Your task to perform on an android device: turn off improve location accuracy Image 0: 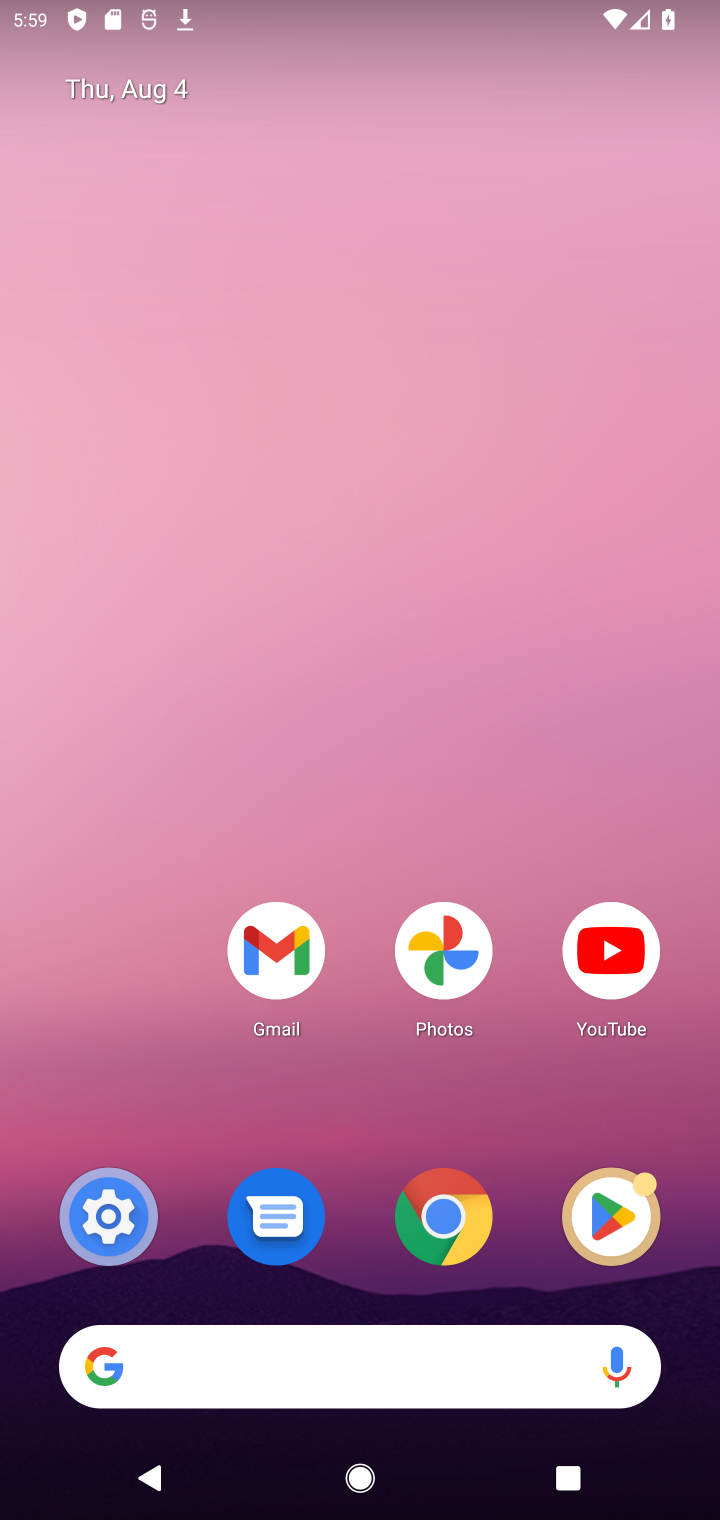
Step 0: drag from (92, 1118) to (135, 4)
Your task to perform on an android device: turn off improve location accuracy Image 1: 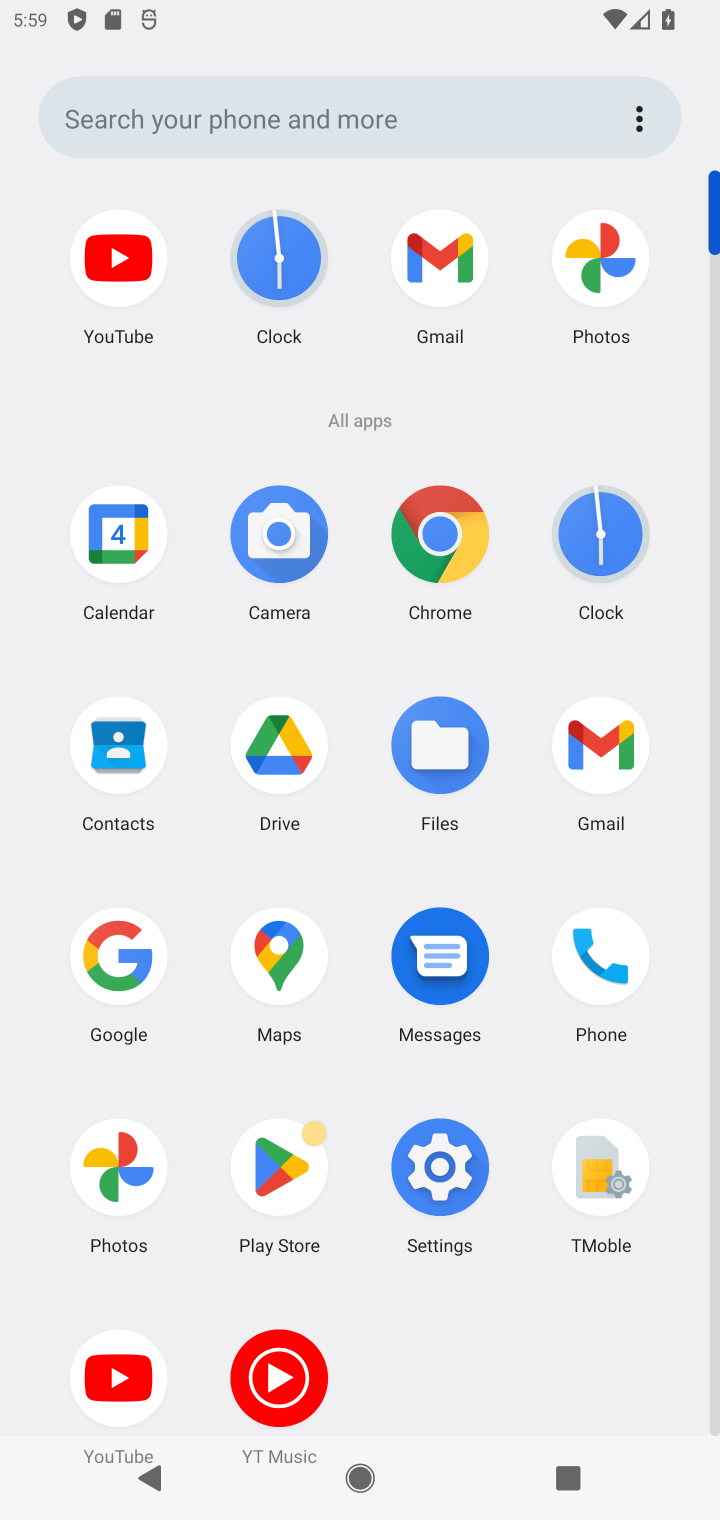
Step 1: click (455, 1176)
Your task to perform on an android device: turn off improve location accuracy Image 2: 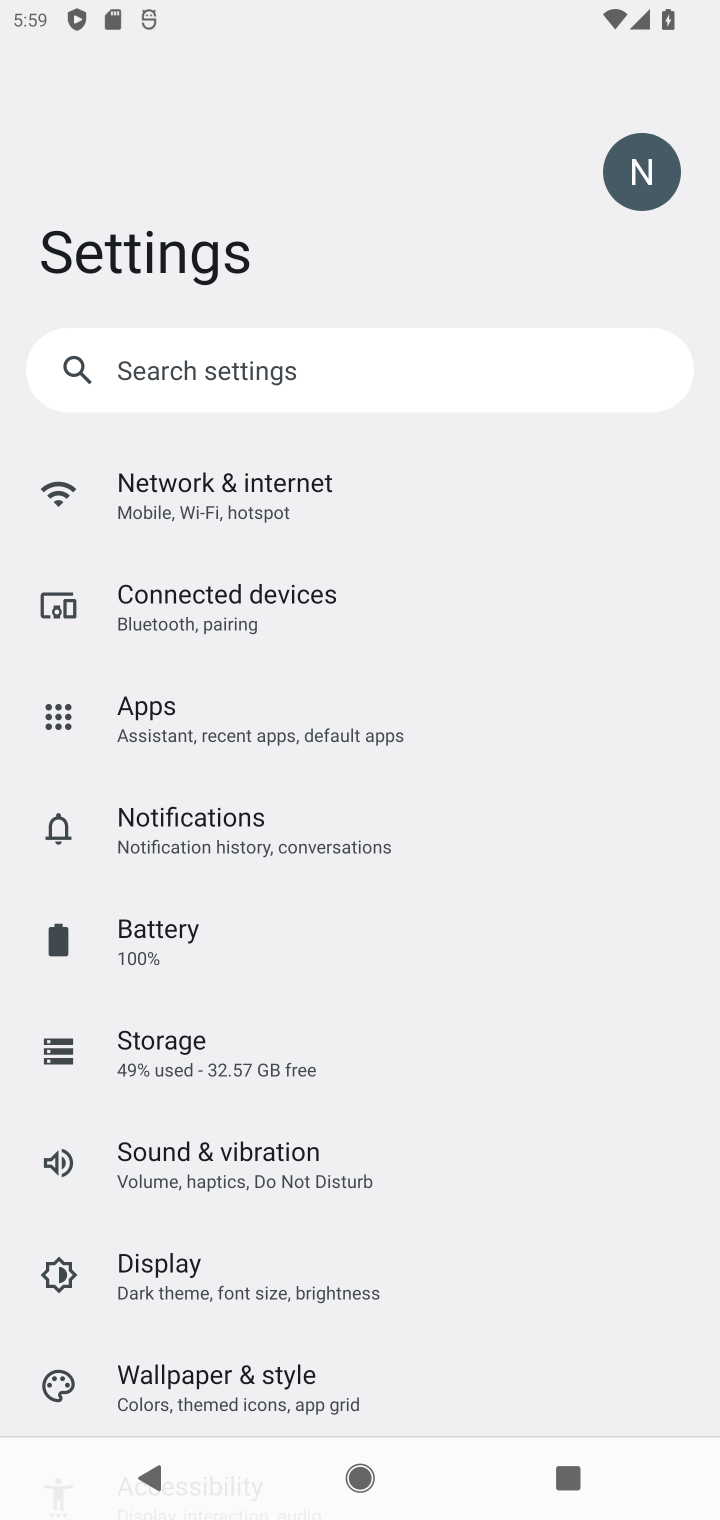
Step 2: drag from (307, 1330) to (369, 663)
Your task to perform on an android device: turn off improve location accuracy Image 3: 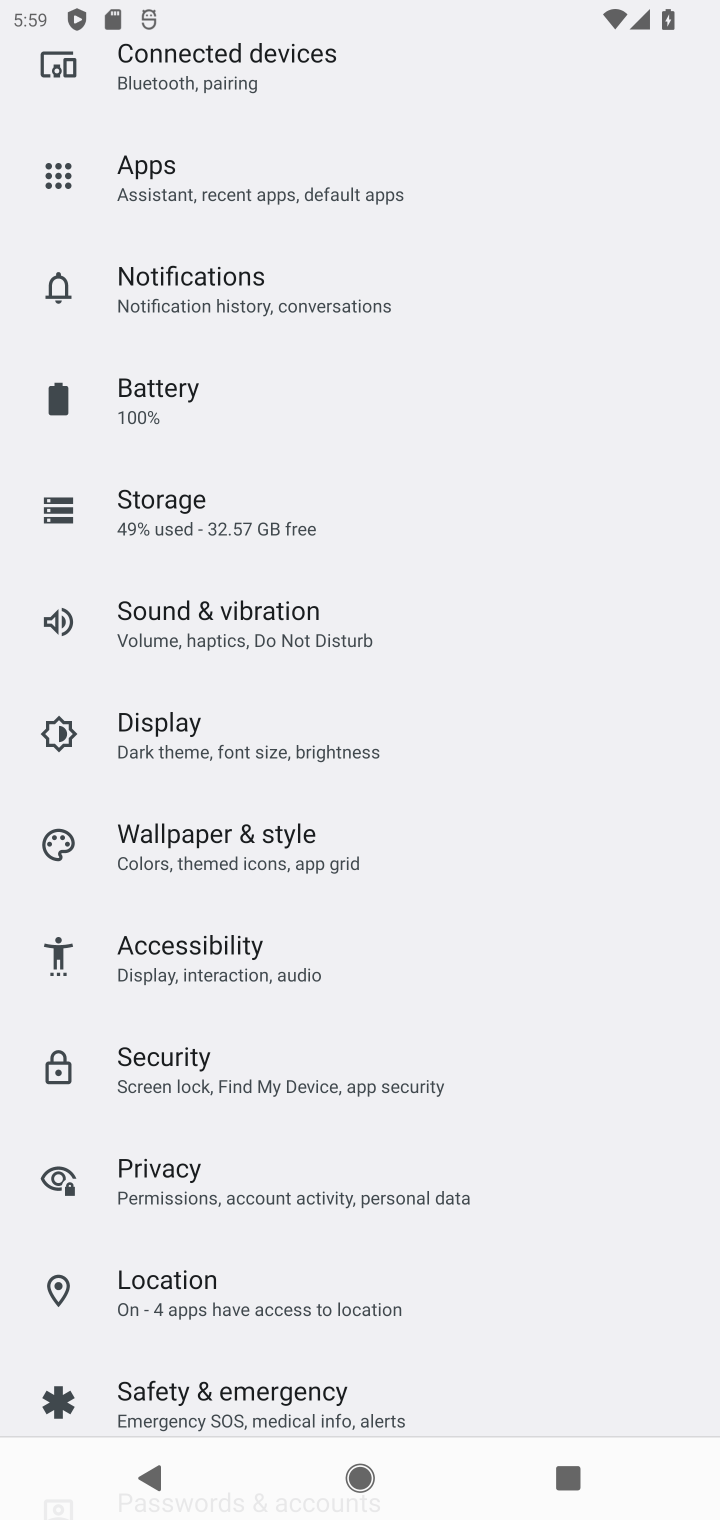
Step 3: click (232, 1309)
Your task to perform on an android device: turn off improve location accuracy Image 4: 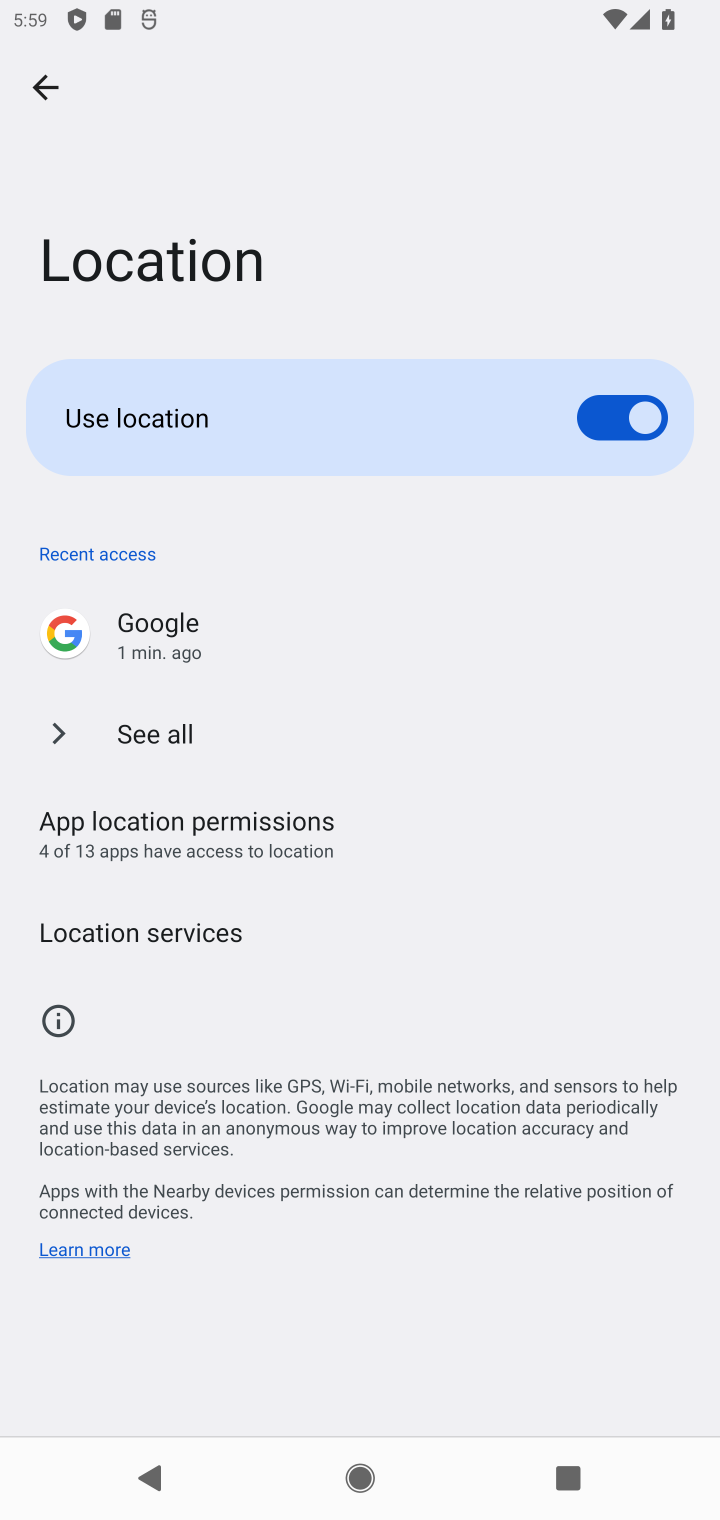
Step 4: click (182, 930)
Your task to perform on an android device: turn off improve location accuracy Image 5: 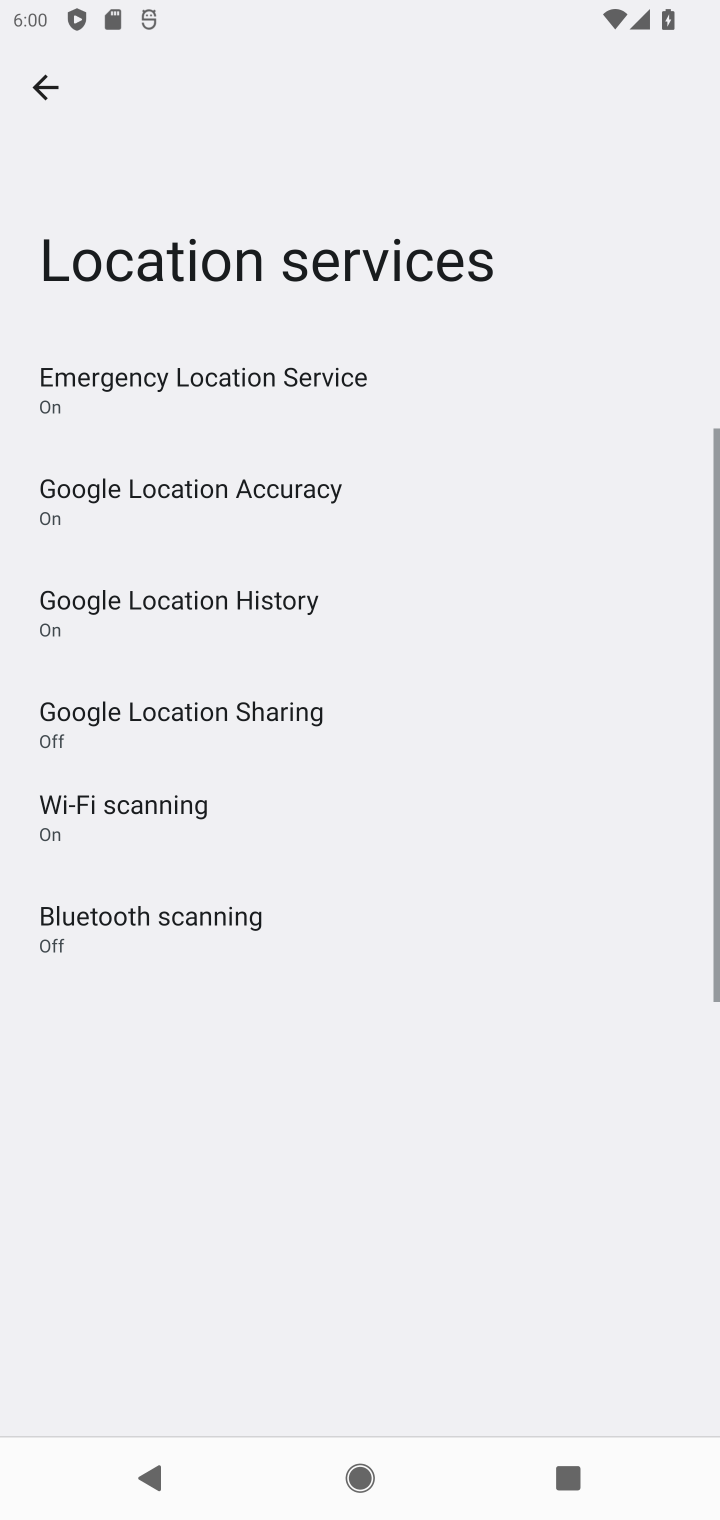
Step 5: click (307, 497)
Your task to perform on an android device: turn off improve location accuracy Image 6: 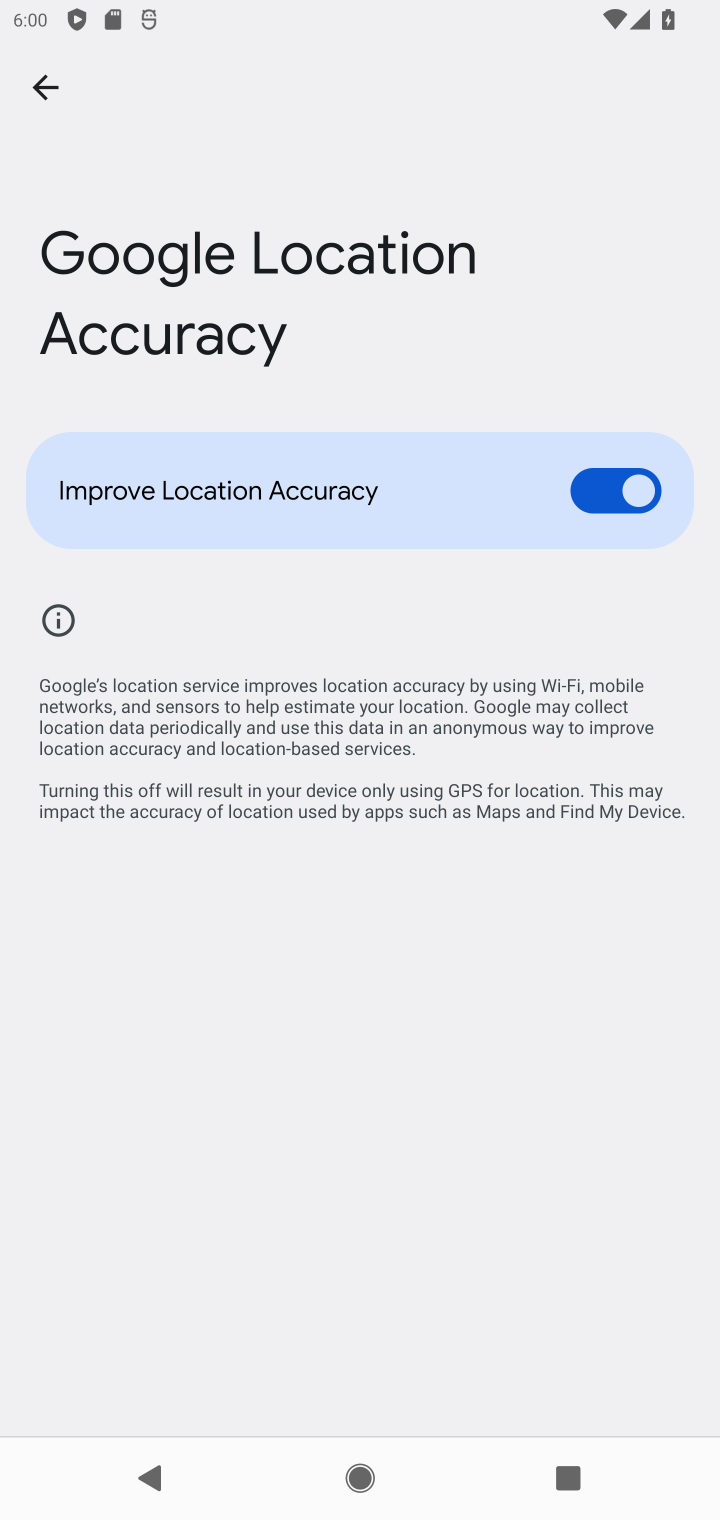
Step 6: click (614, 510)
Your task to perform on an android device: turn off improve location accuracy Image 7: 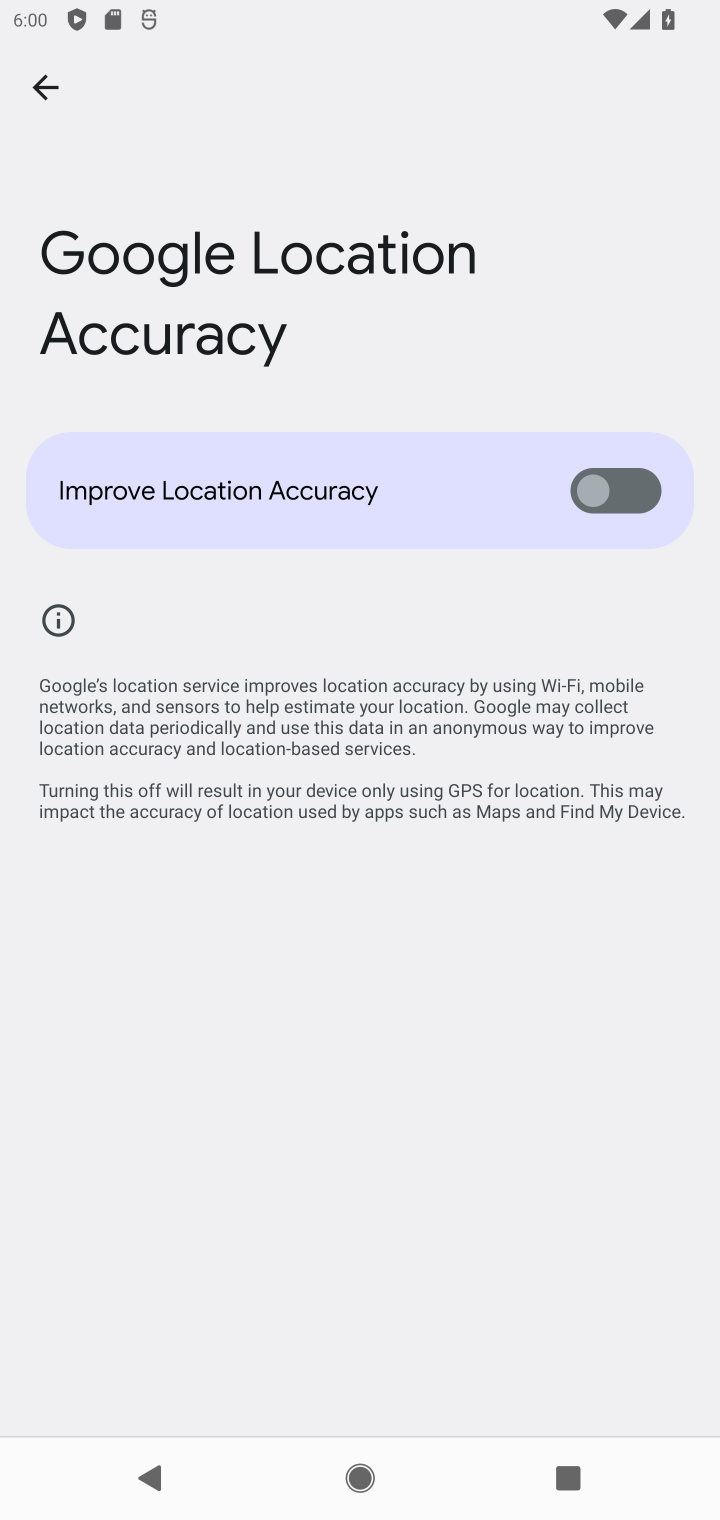
Step 7: task complete